Your task to perform on an android device: Go to settings Image 0: 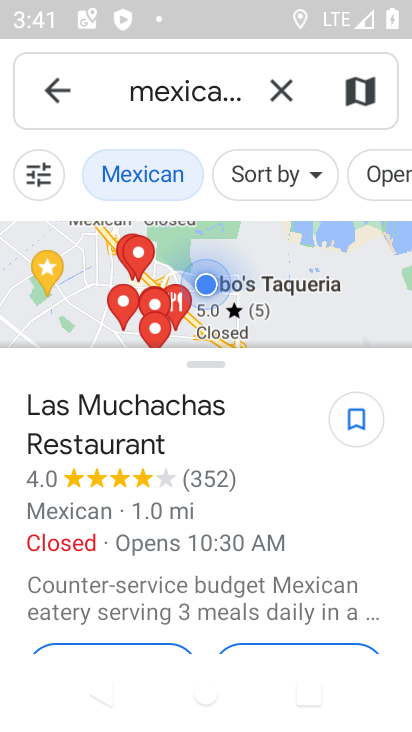
Step 0: press home button
Your task to perform on an android device: Go to settings Image 1: 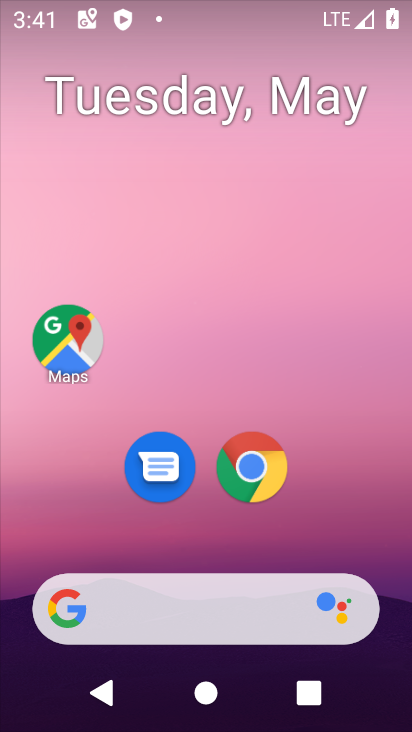
Step 1: click (378, 189)
Your task to perform on an android device: Go to settings Image 2: 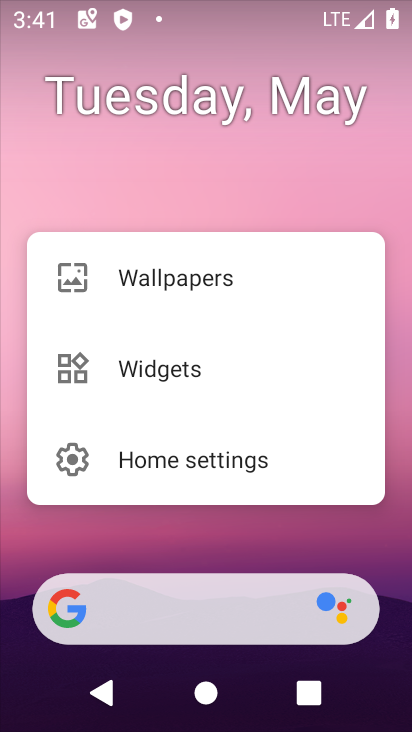
Step 2: click (381, 524)
Your task to perform on an android device: Go to settings Image 3: 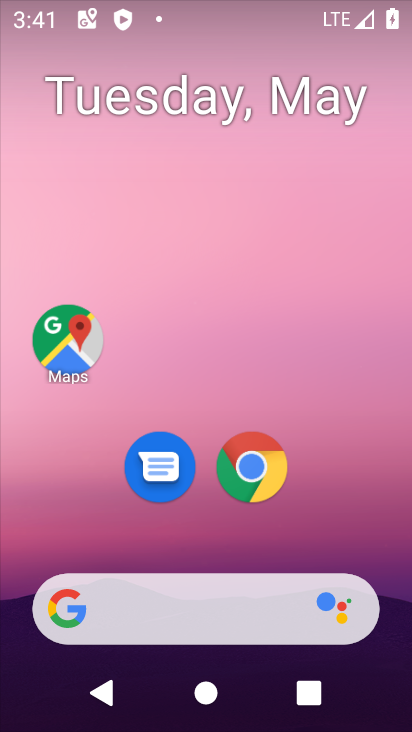
Step 3: drag from (381, 529) to (327, 41)
Your task to perform on an android device: Go to settings Image 4: 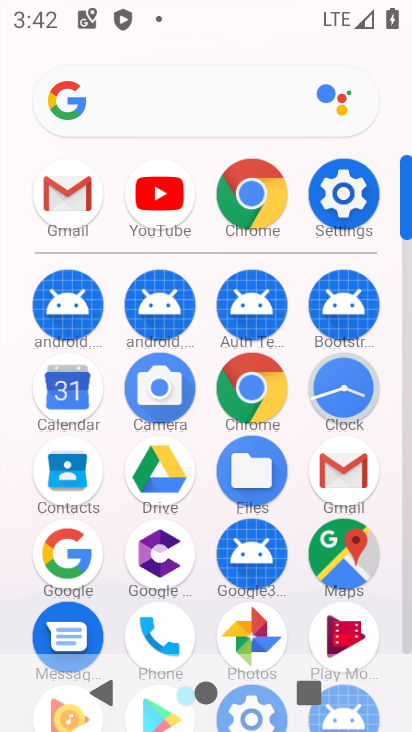
Step 4: click (348, 200)
Your task to perform on an android device: Go to settings Image 5: 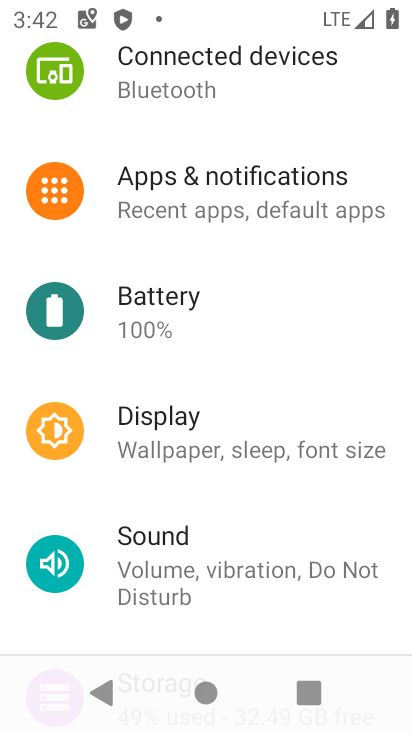
Step 5: task complete